Your task to perform on an android device: change the clock style Image 0: 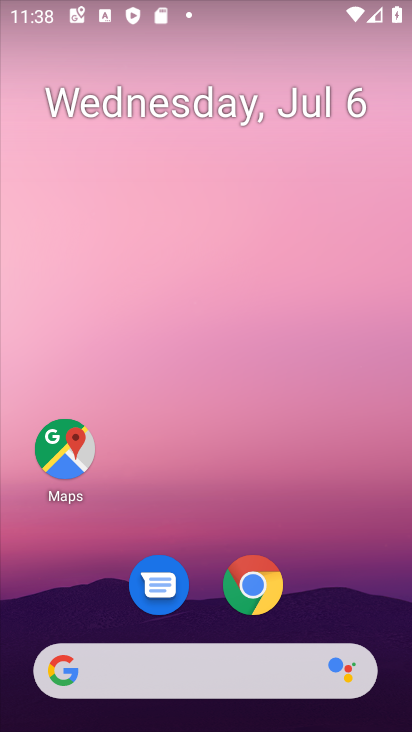
Step 0: drag from (236, 534) to (264, 38)
Your task to perform on an android device: change the clock style Image 1: 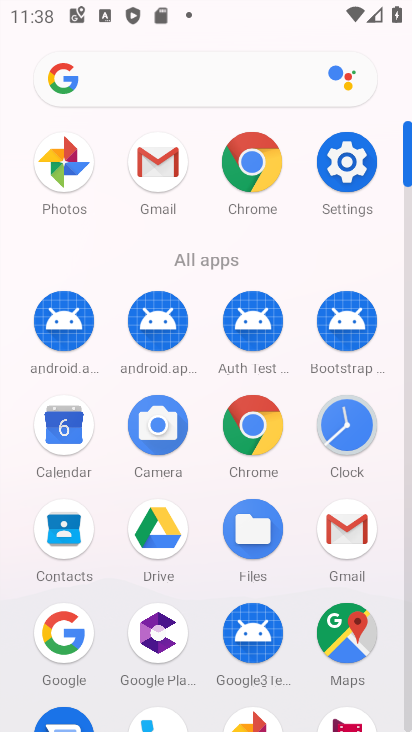
Step 1: click (337, 421)
Your task to perform on an android device: change the clock style Image 2: 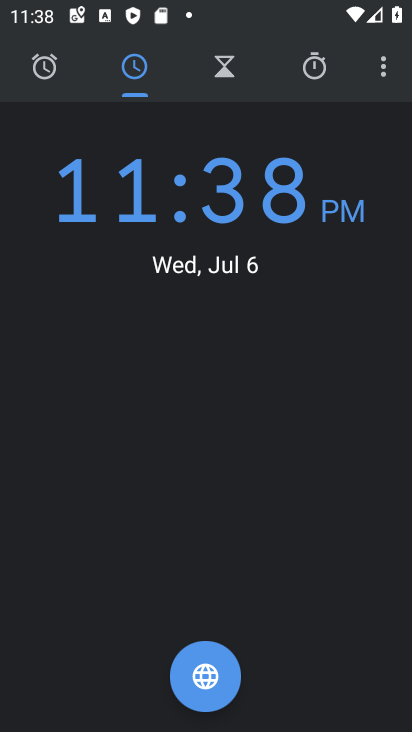
Step 2: click (384, 75)
Your task to perform on an android device: change the clock style Image 3: 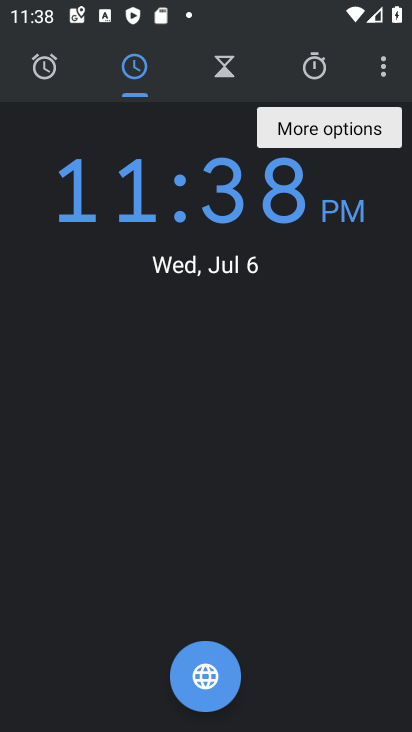
Step 3: click (382, 78)
Your task to perform on an android device: change the clock style Image 4: 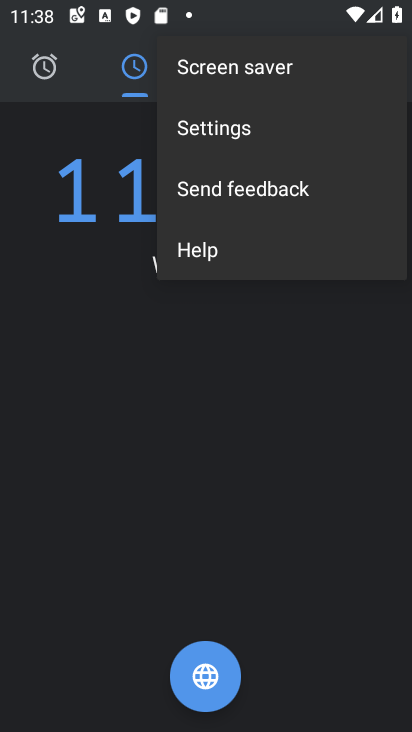
Step 4: click (296, 132)
Your task to perform on an android device: change the clock style Image 5: 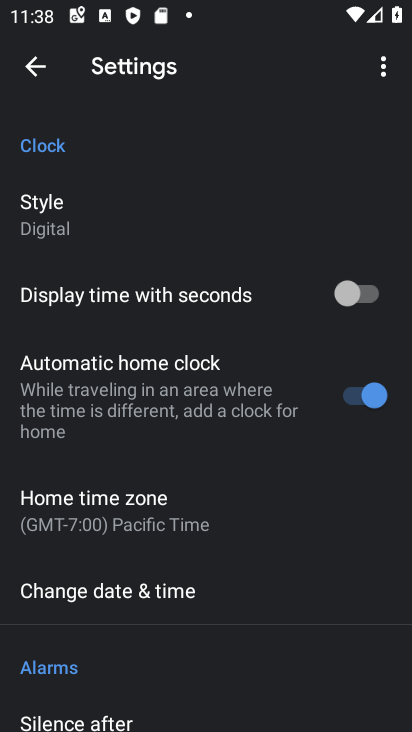
Step 5: click (71, 221)
Your task to perform on an android device: change the clock style Image 6: 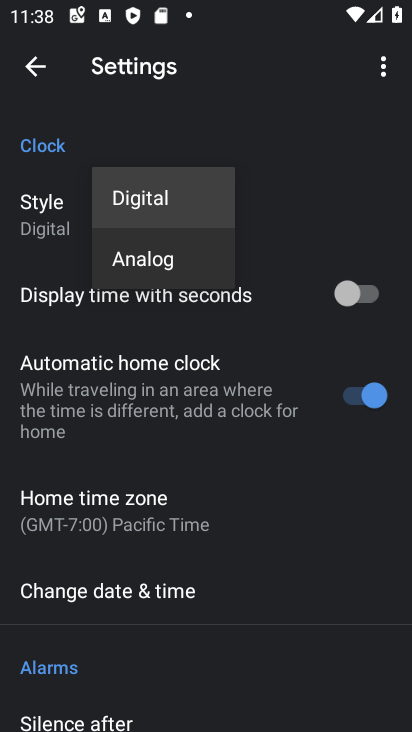
Step 6: click (139, 265)
Your task to perform on an android device: change the clock style Image 7: 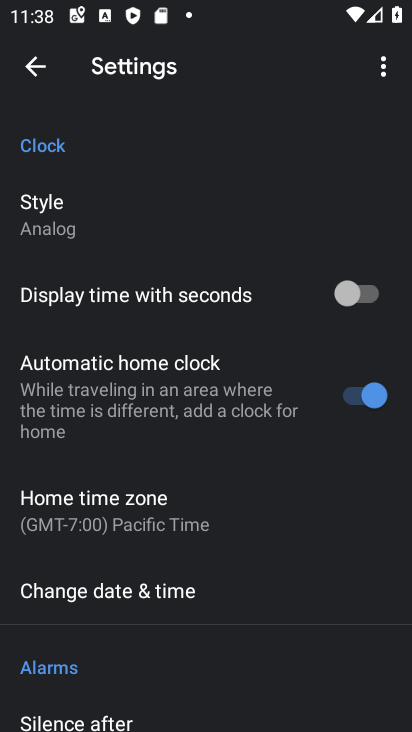
Step 7: click (33, 56)
Your task to perform on an android device: change the clock style Image 8: 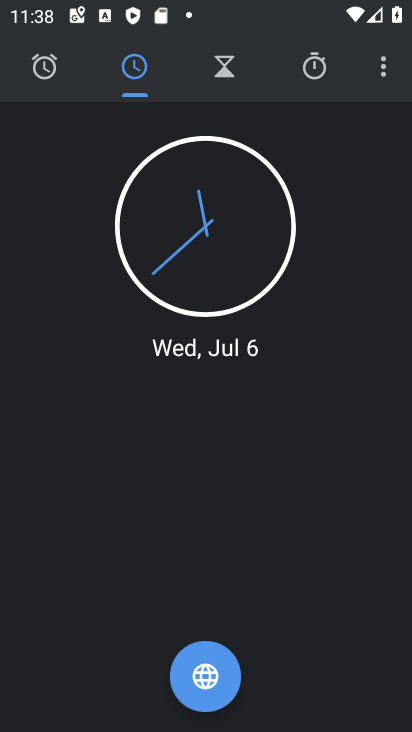
Step 8: task complete